Your task to perform on an android device: set the stopwatch Image 0: 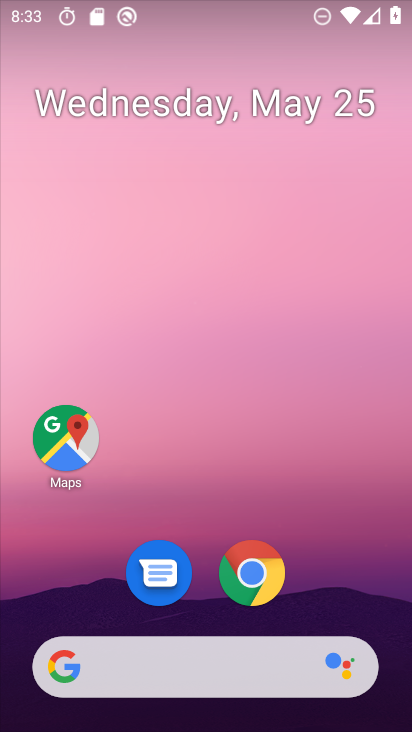
Step 0: drag from (393, 713) to (355, 210)
Your task to perform on an android device: set the stopwatch Image 1: 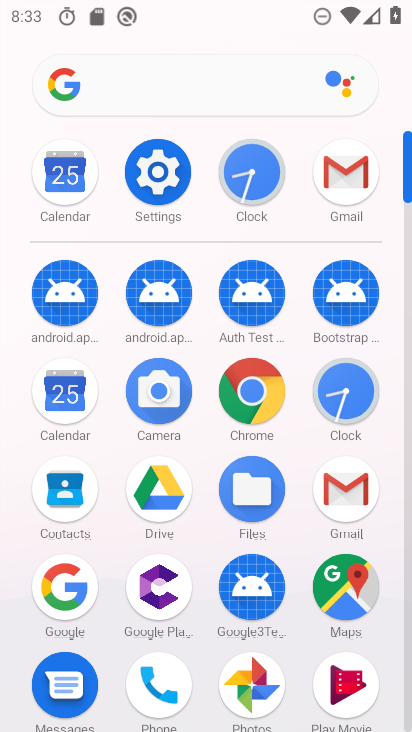
Step 1: click (335, 393)
Your task to perform on an android device: set the stopwatch Image 2: 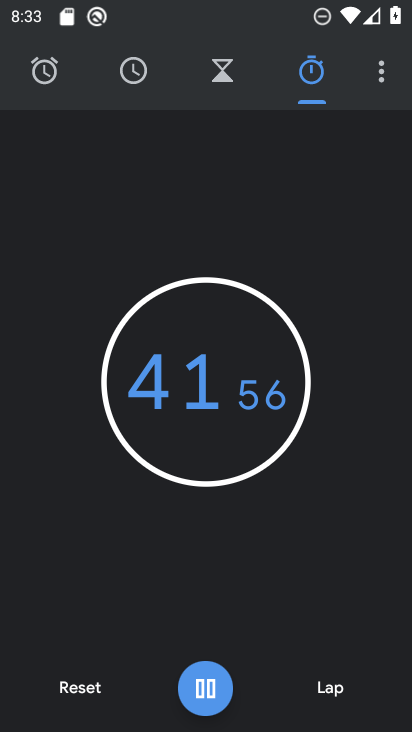
Step 2: click (81, 697)
Your task to perform on an android device: set the stopwatch Image 3: 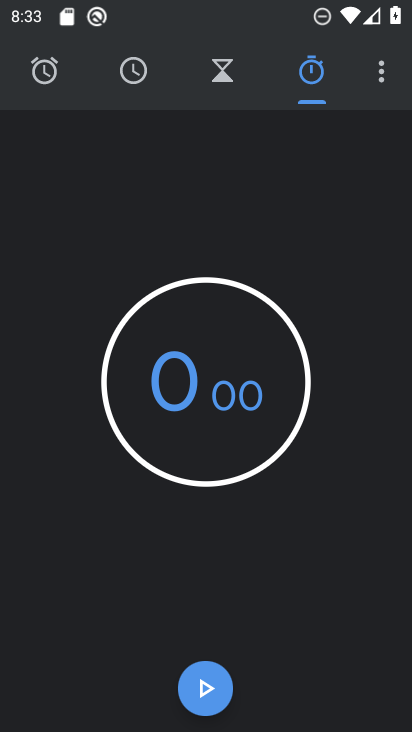
Step 3: click (221, 673)
Your task to perform on an android device: set the stopwatch Image 4: 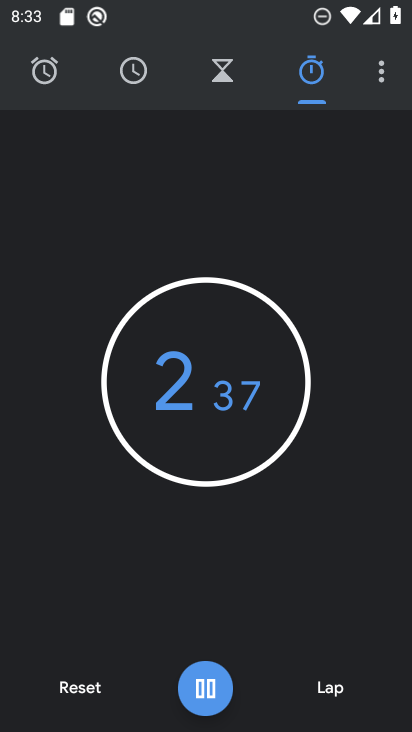
Step 4: task complete